Your task to perform on an android device: Open Google Chrome and open the bookmarks view Image 0: 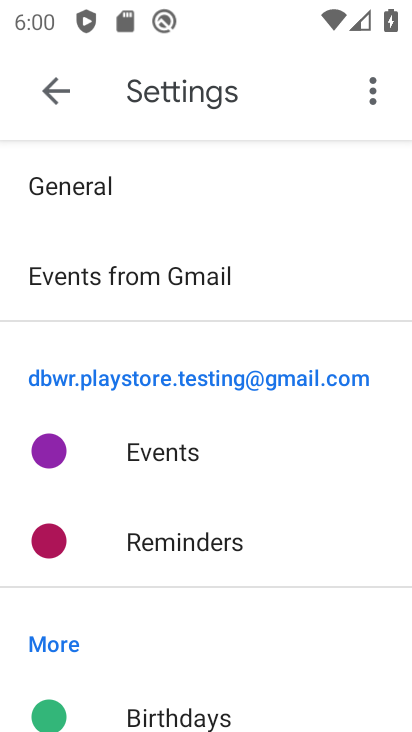
Step 0: click (240, 0)
Your task to perform on an android device: Open Google Chrome and open the bookmarks view Image 1: 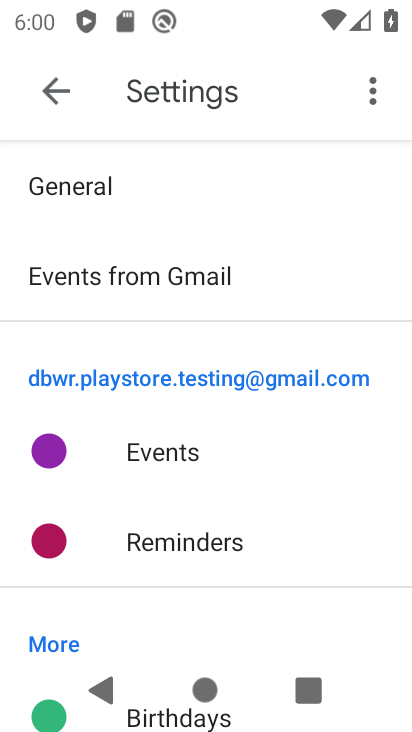
Step 1: press home button
Your task to perform on an android device: Open Google Chrome and open the bookmarks view Image 2: 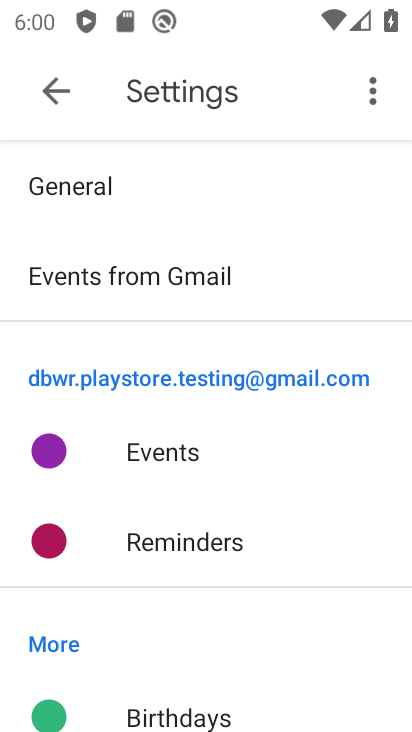
Step 2: press home button
Your task to perform on an android device: Open Google Chrome and open the bookmarks view Image 3: 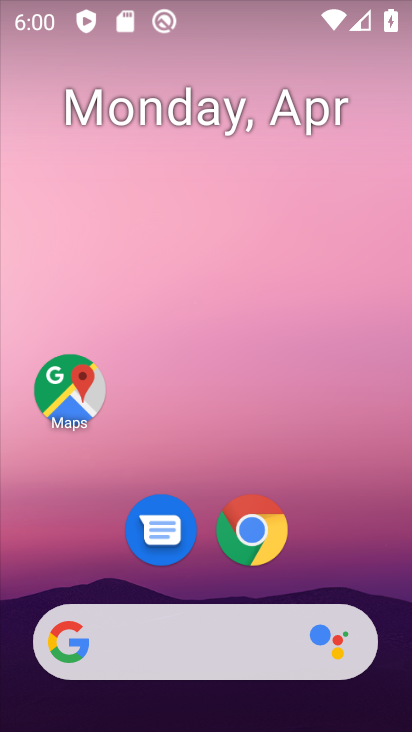
Step 3: click (251, 528)
Your task to perform on an android device: Open Google Chrome and open the bookmarks view Image 4: 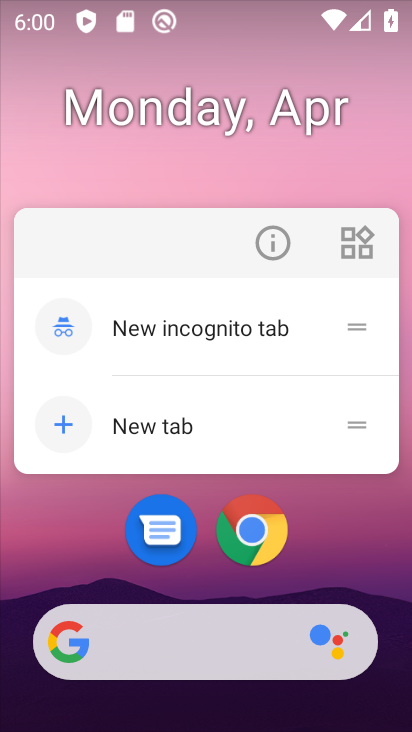
Step 4: click (343, 561)
Your task to perform on an android device: Open Google Chrome and open the bookmarks view Image 5: 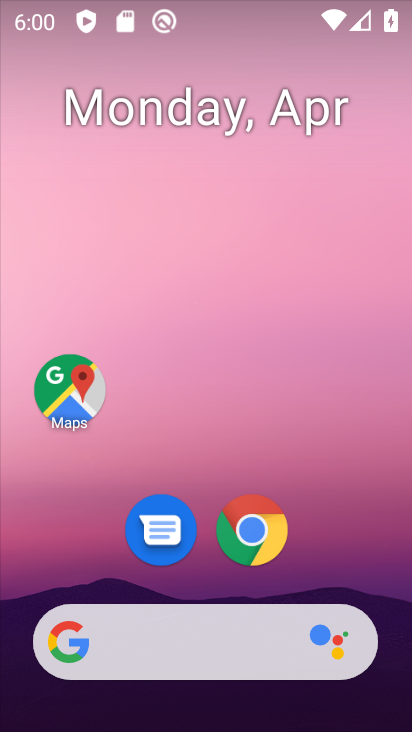
Step 5: click (251, 527)
Your task to perform on an android device: Open Google Chrome and open the bookmarks view Image 6: 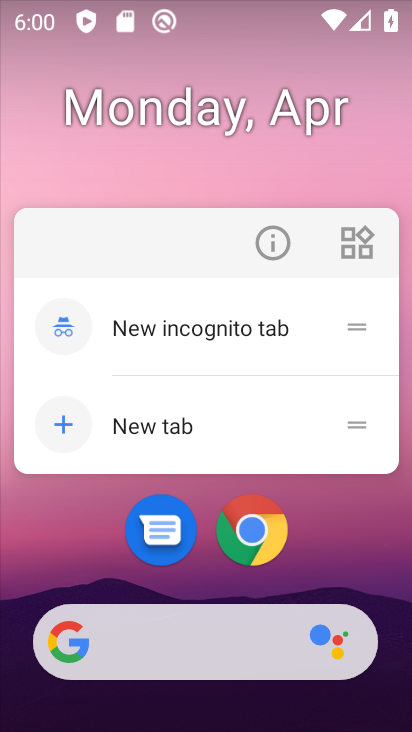
Step 6: click (321, 546)
Your task to perform on an android device: Open Google Chrome and open the bookmarks view Image 7: 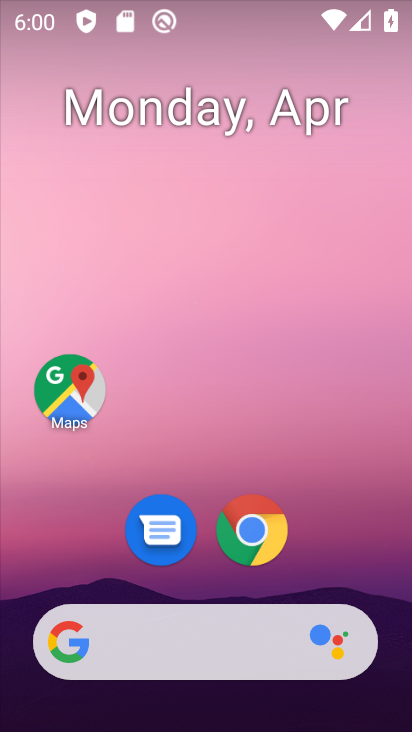
Step 7: click (251, 533)
Your task to perform on an android device: Open Google Chrome and open the bookmarks view Image 8: 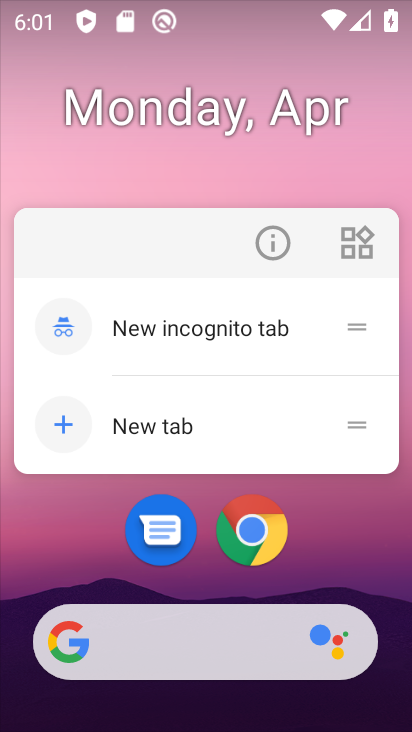
Step 8: drag from (305, 561) to (352, 24)
Your task to perform on an android device: Open Google Chrome and open the bookmarks view Image 9: 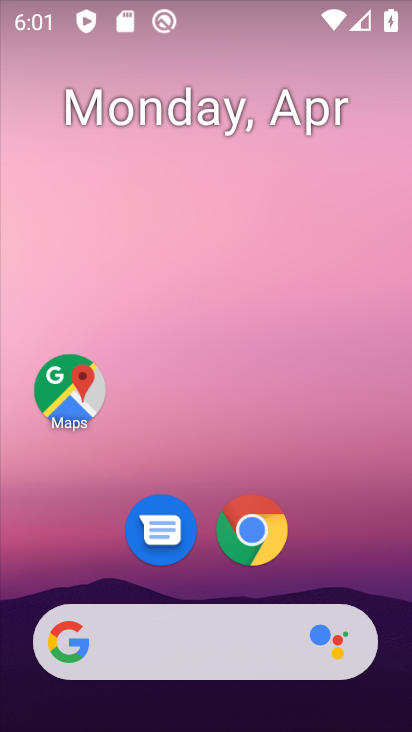
Step 9: drag from (211, 586) to (268, 50)
Your task to perform on an android device: Open Google Chrome and open the bookmarks view Image 10: 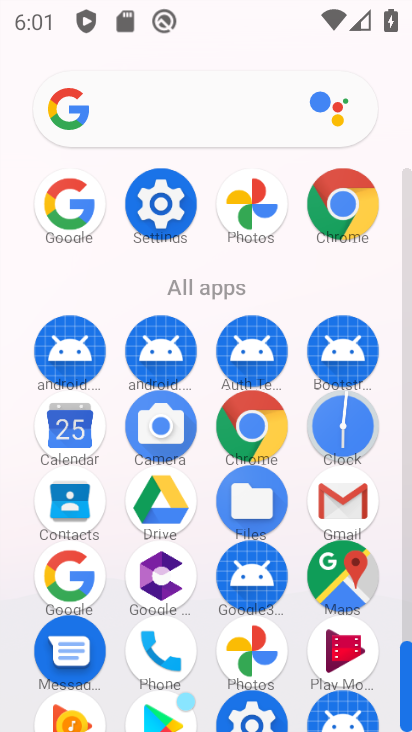
Step 10: click (246, 418)
Your task to perform on an android device: Open Google Chrome and open the bookmarks view Image 11: 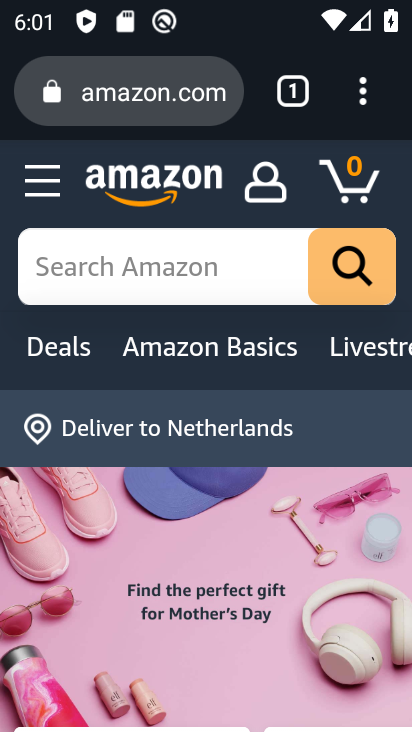
Step 11: click (361, 92)
Your task to perform on an android device: Open Google Chrome and open the bookmarks view Image 12: 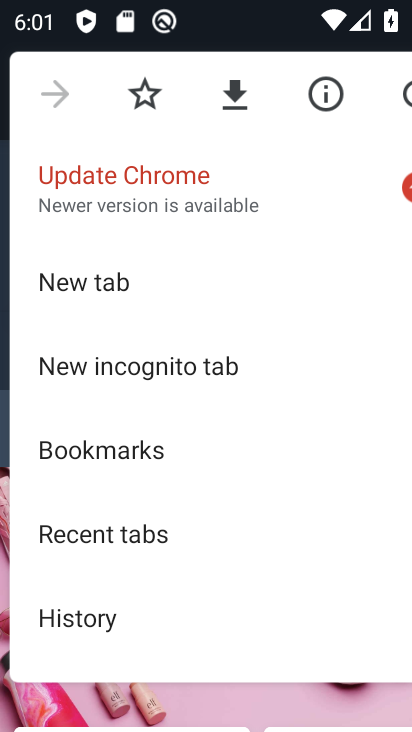
Step 12: click (167, 439)
Your task to perform on an android device: Open Google Chrome and open the bookmarks view Image 13: 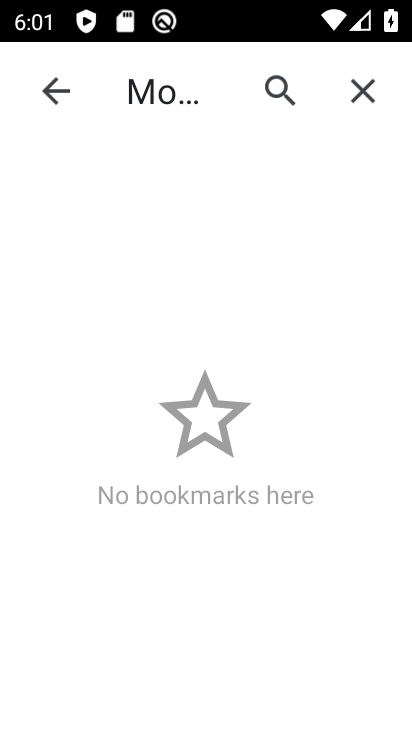
Step 13: task complete